Your task to perform on an android device: Search for sushi restaurants on Maps Image 0: 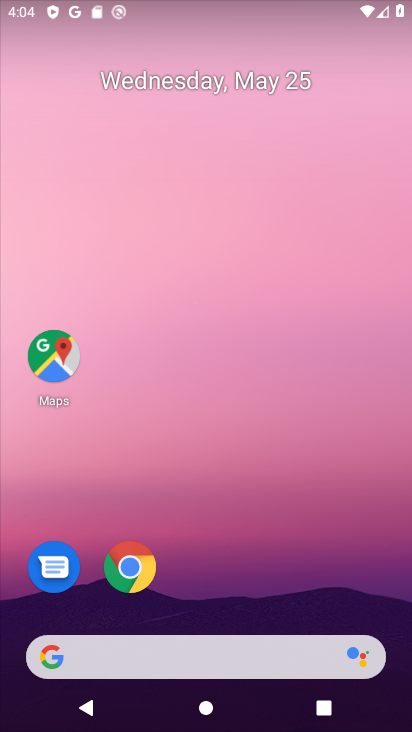
Step 0: drag from (229, 553) to (171, 54)
Your task to perform on an android device: Search for sushi restaurants on Maps Image 1: 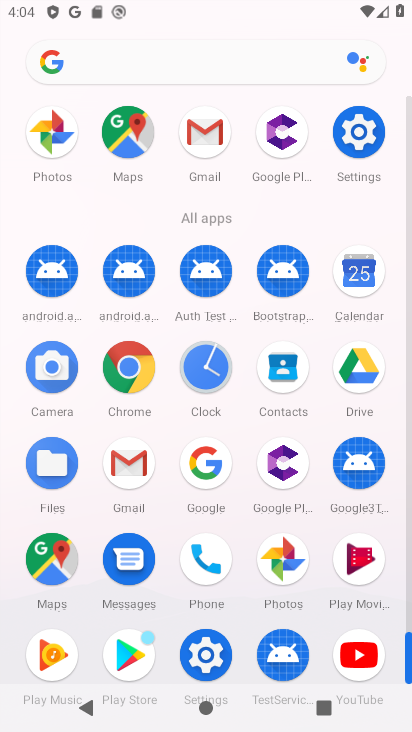
Step 1: drag from (1, 564) to (42, 253)
Your task to perform on an android device: Search for sushi restaurants on Maps Image 2: 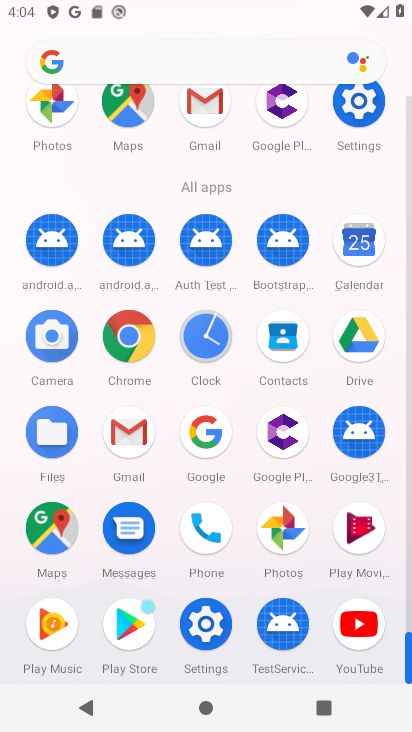
Step 2: click (49, 524)
Your task to perform on an android device: Search for sushi restaurants on Maps Image 3: 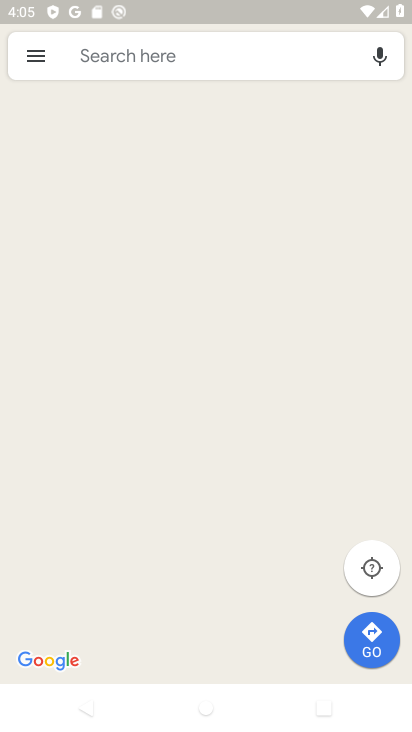
Step 3: click (214, 55)
Your task to perform on an android device: Search for sushi restaurants on Maps Image 4: 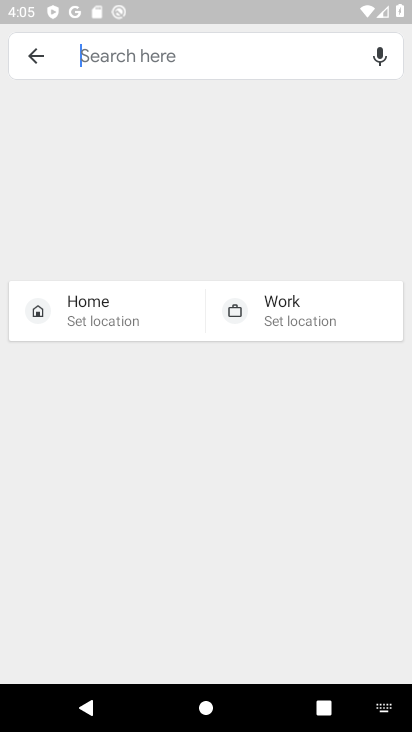
Step 4: type "sushi restaurants"
Your task to perform on an android device: Search for sushi restaurants on Maps Image 5: 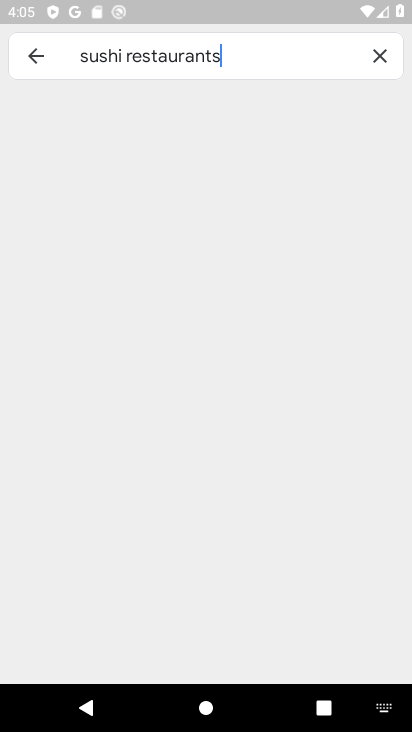
Step 5: type ""
Your task to perform on an android device: Search for sushi restaurants on Maps Image 6: 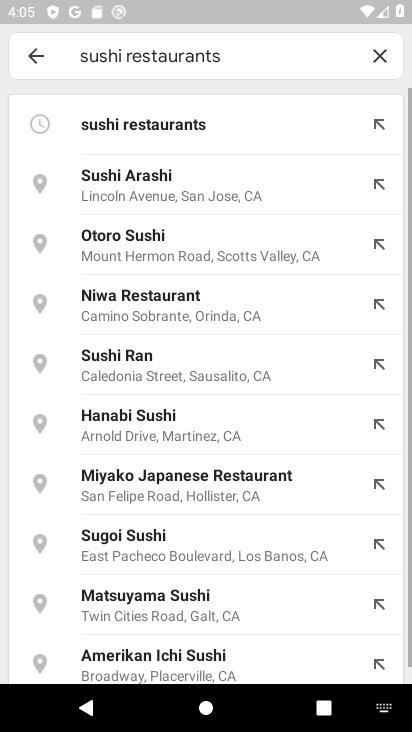
Step 6: click (213, 131)
Your task to perform on an android device: Search for sushi restaurants on Maps Image 7: 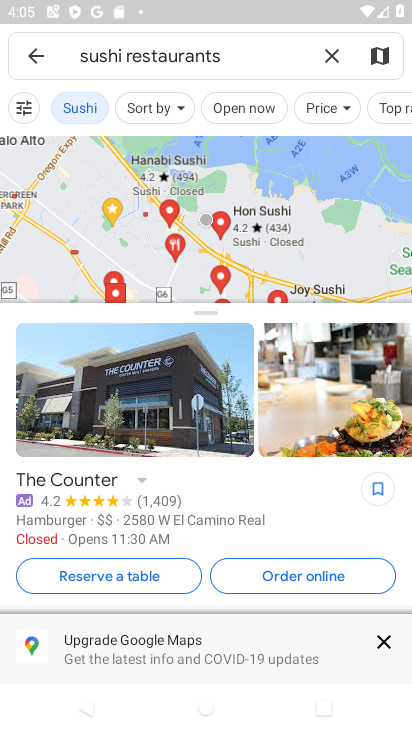
Step 7: task complete